Your task to perform on an android device: Open privacy settings Image 0: 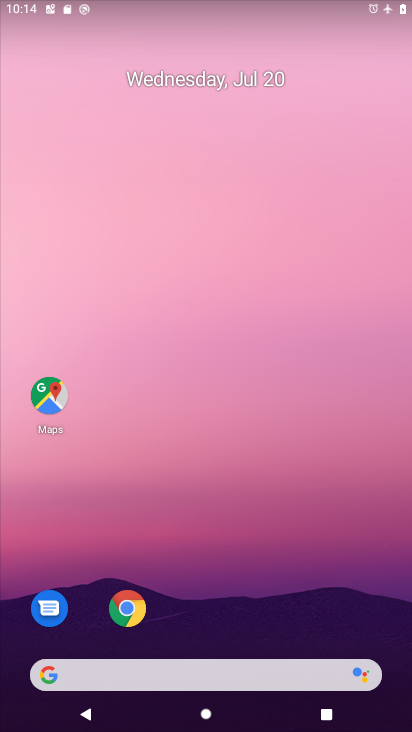
Step 0: click (116, 599)
Your task to perform on an android device: Open privacy settings Image 1: 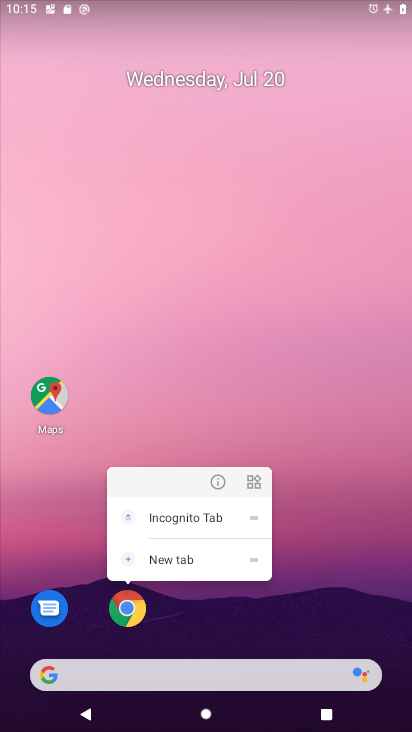
Step 1: click (136, 619)
Your task to perform on an android device: Open privacy settings Image 2: 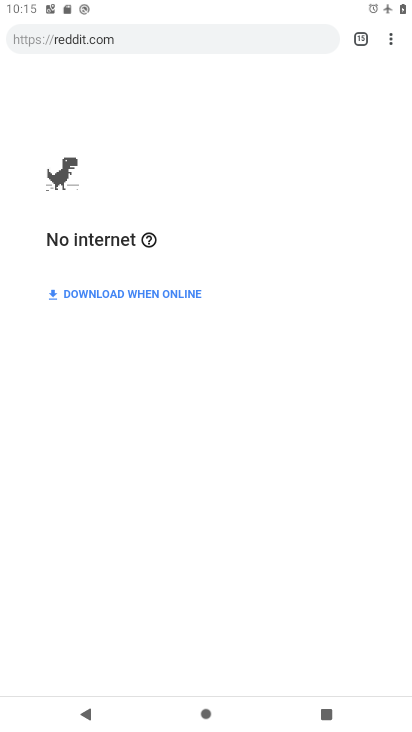
Step 2: click (398, 33)
Your task to perform on an android device: Open privacy settings Image 3: 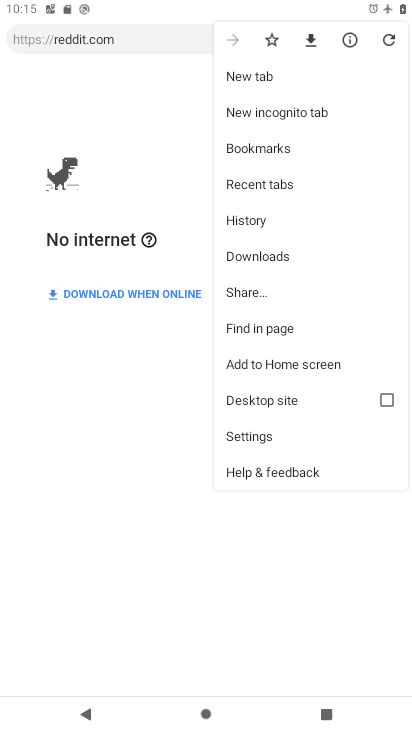
Step 3: click (260, 442)
Your task to perform on an android device: Open privacy settings Image 4: 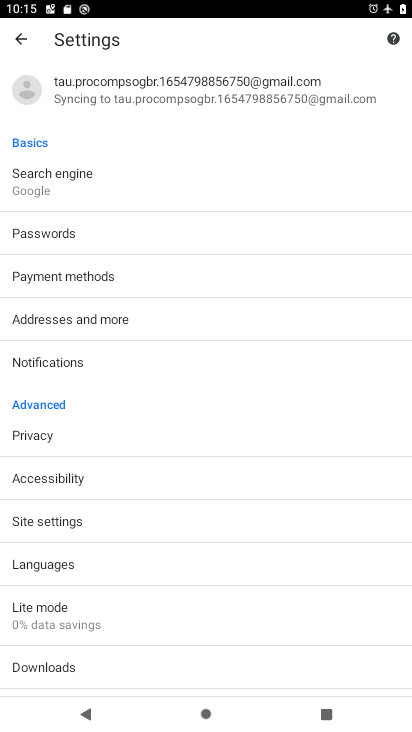
Step 4: click (103, 441)
Your task to perform on an android device: Open privacy settings Image 5: 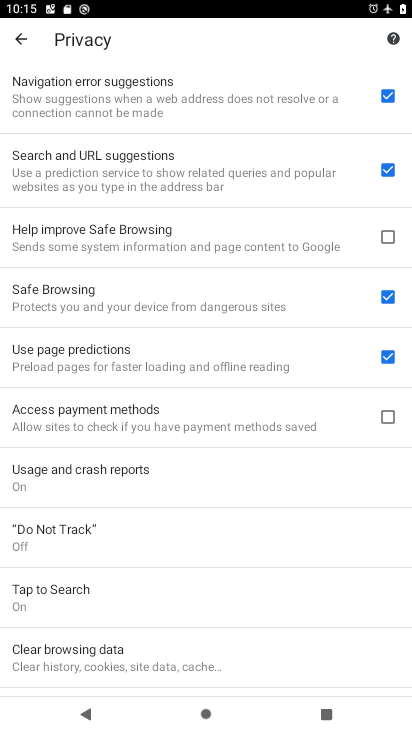
Step 5: task complete